Your task to perform on an android device: Clear the shopping cart on bestbuy. Search for lg ultragear on bestbuy, select the first entry, and add it to the cart. Image 0: 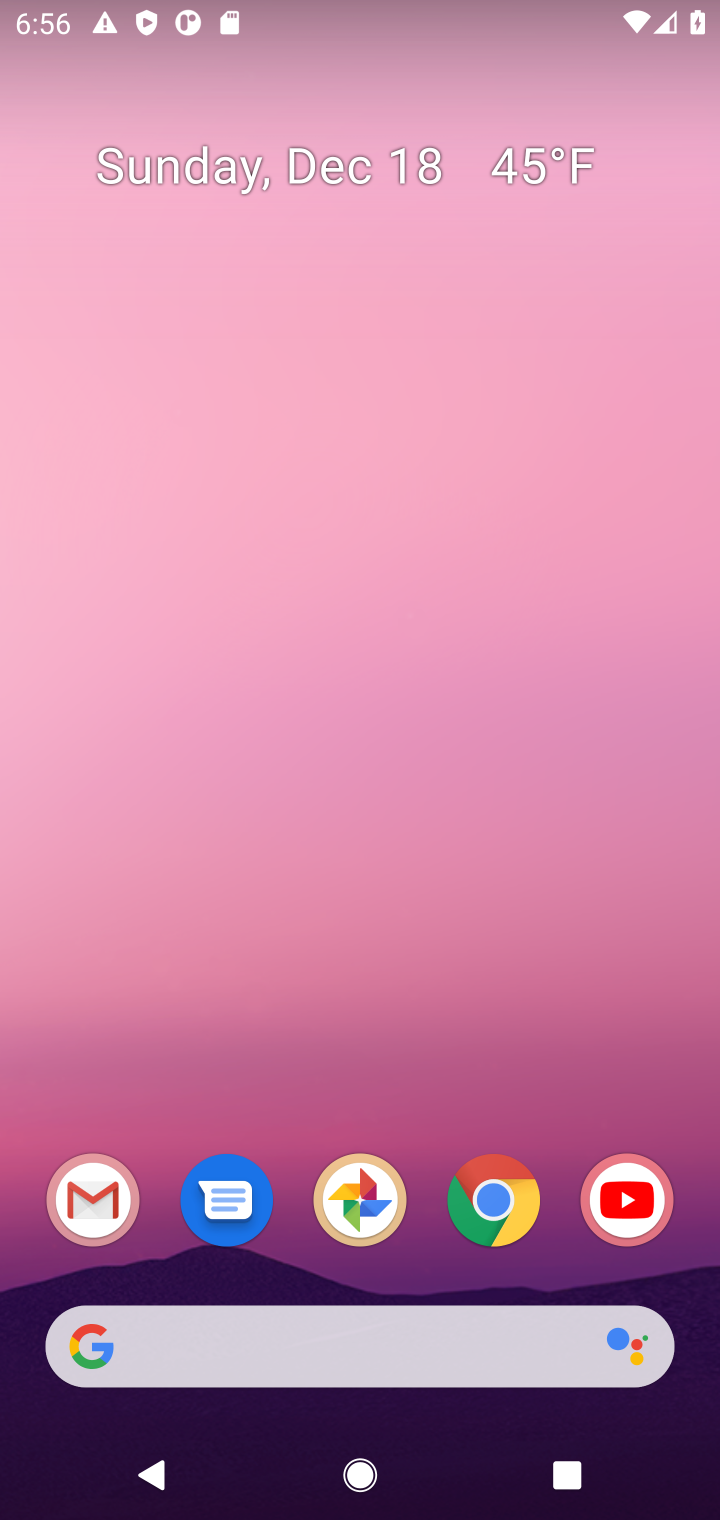
Step 0: click (492, 1207)
Your task to perform on an android device: Clear the shopping cart on bestbuy. Search for lg ultragear on bestbuy, select the first entry, and add it to the cart. Image 1: 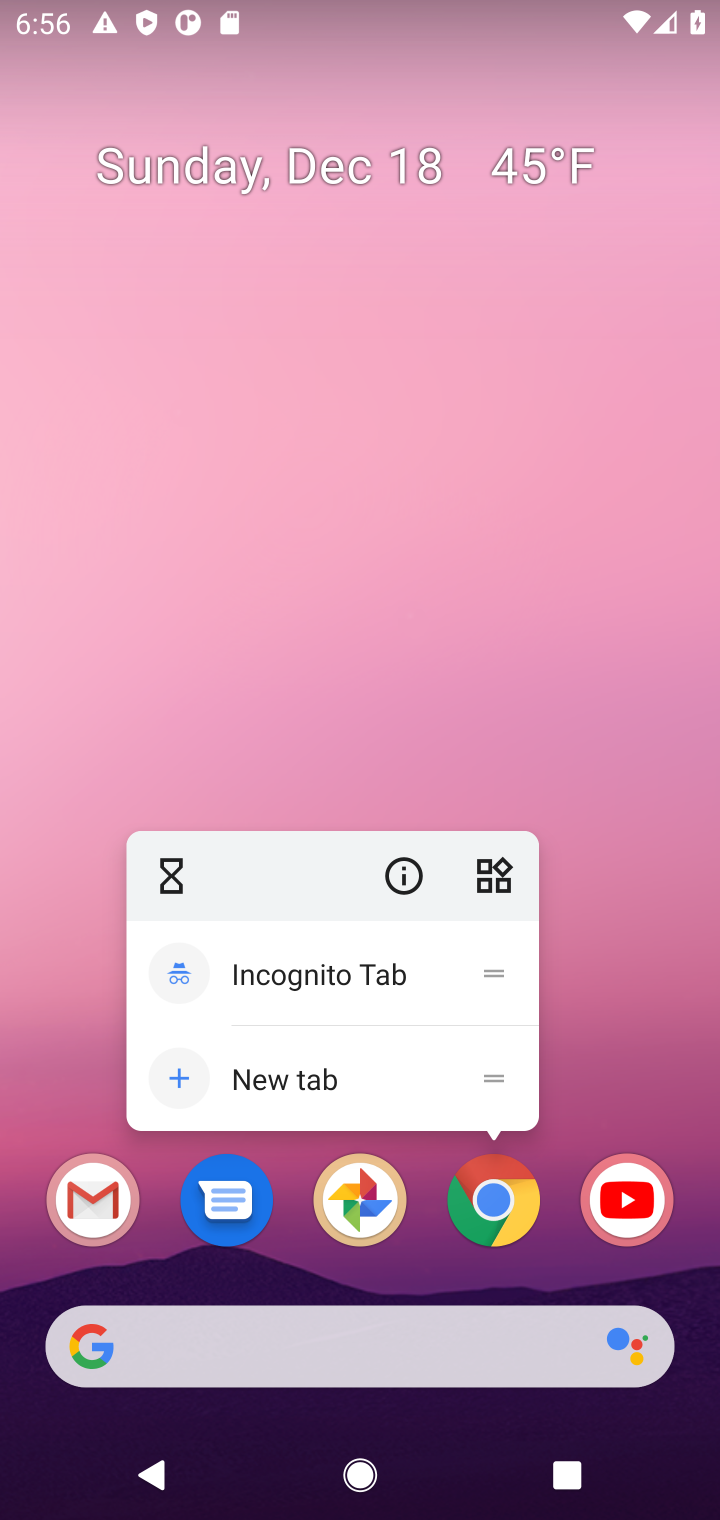
Step 1: click (492, 1207)
Your task to perform on an android device: Clear the shopping cart on bestbuy. Search for lg ultragear on bestbuy, select the first entry, and add it to the cart. Image 2: 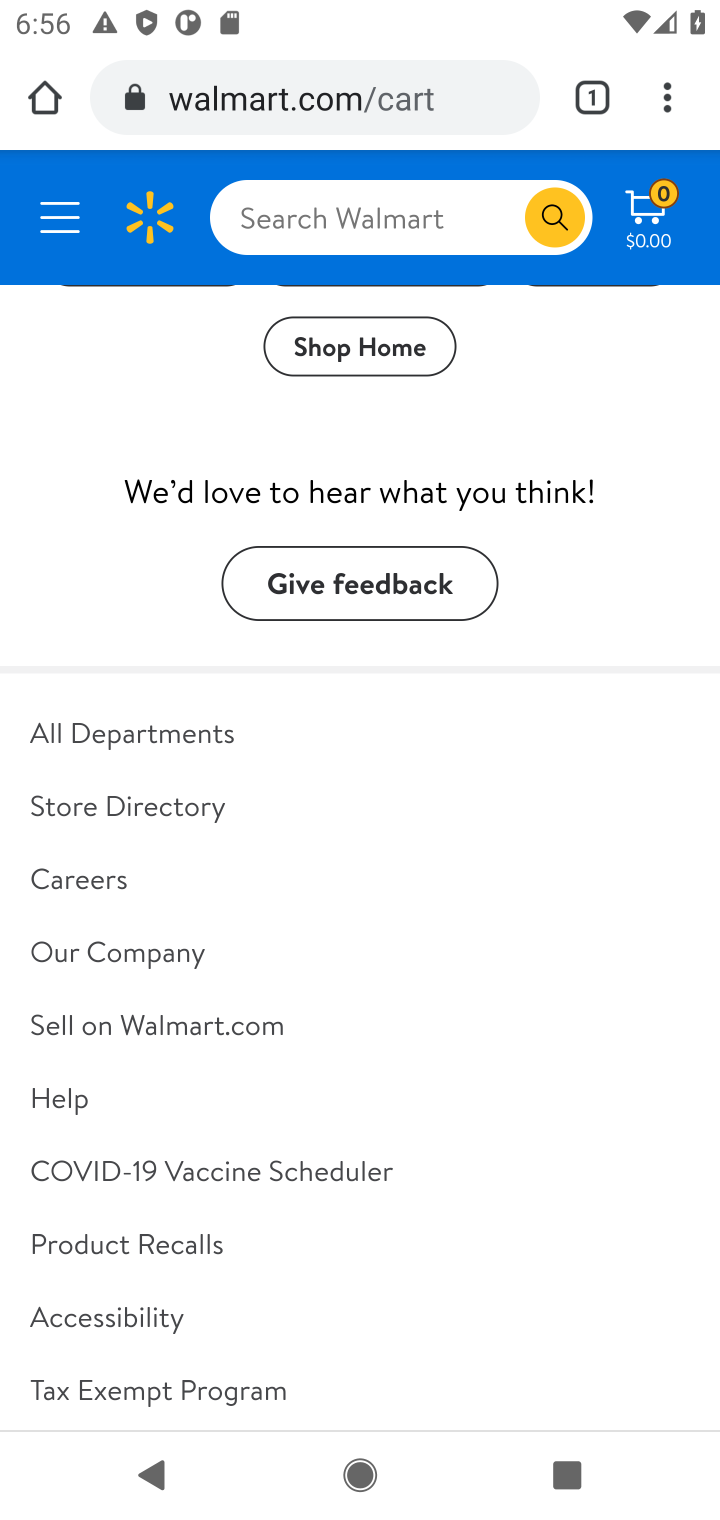
Step 2: click (318, 90)
Your task to perform on an android device: Clear the shopping cart on bestbuy. Search for lg ultragear on bestbuy, select the first entry, and add it to the cart. Image 3: 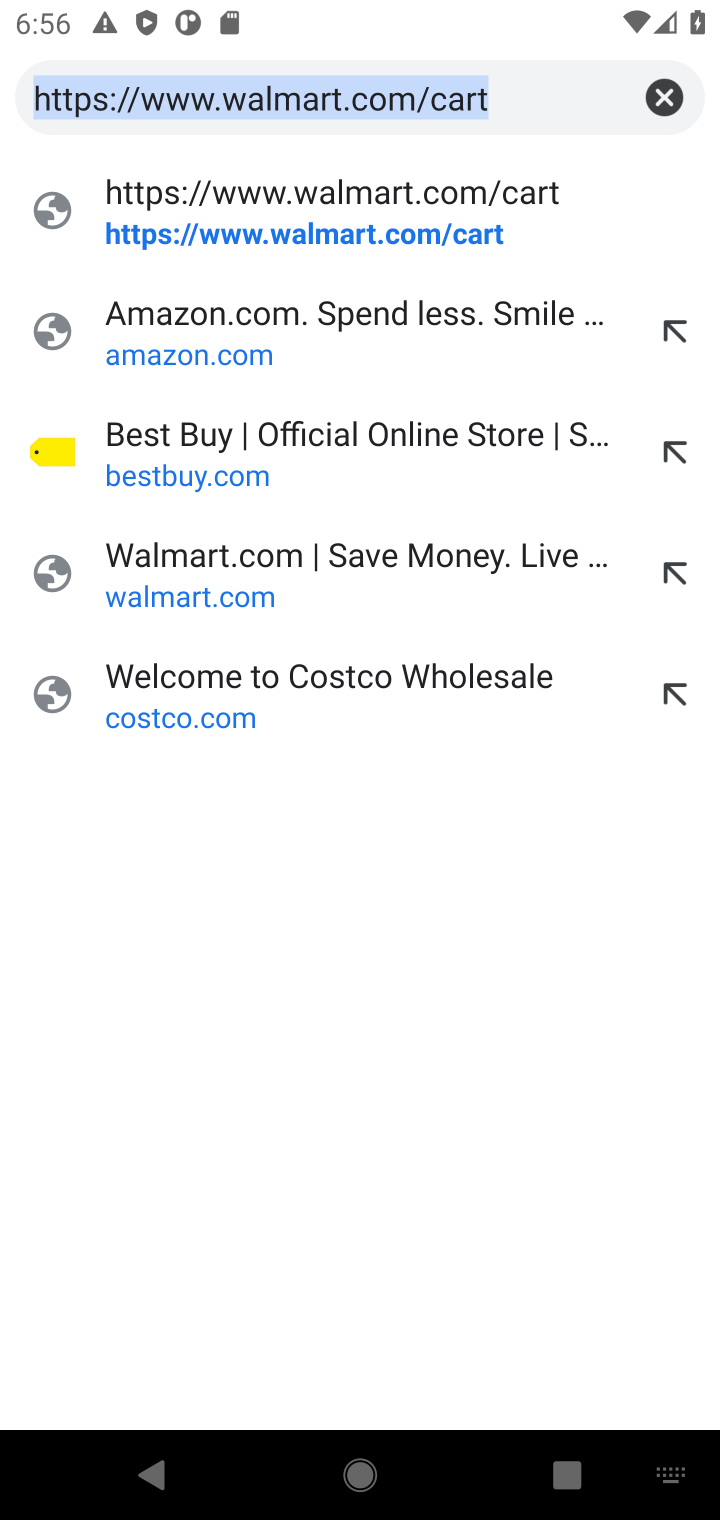
Step 3: click (152, 450)
Your task to perform on an android device: Clear the shopping cart on bestbuy. Search for lg ultragear on bestbuy, select the first entry, and add it to the cart. Image 4: 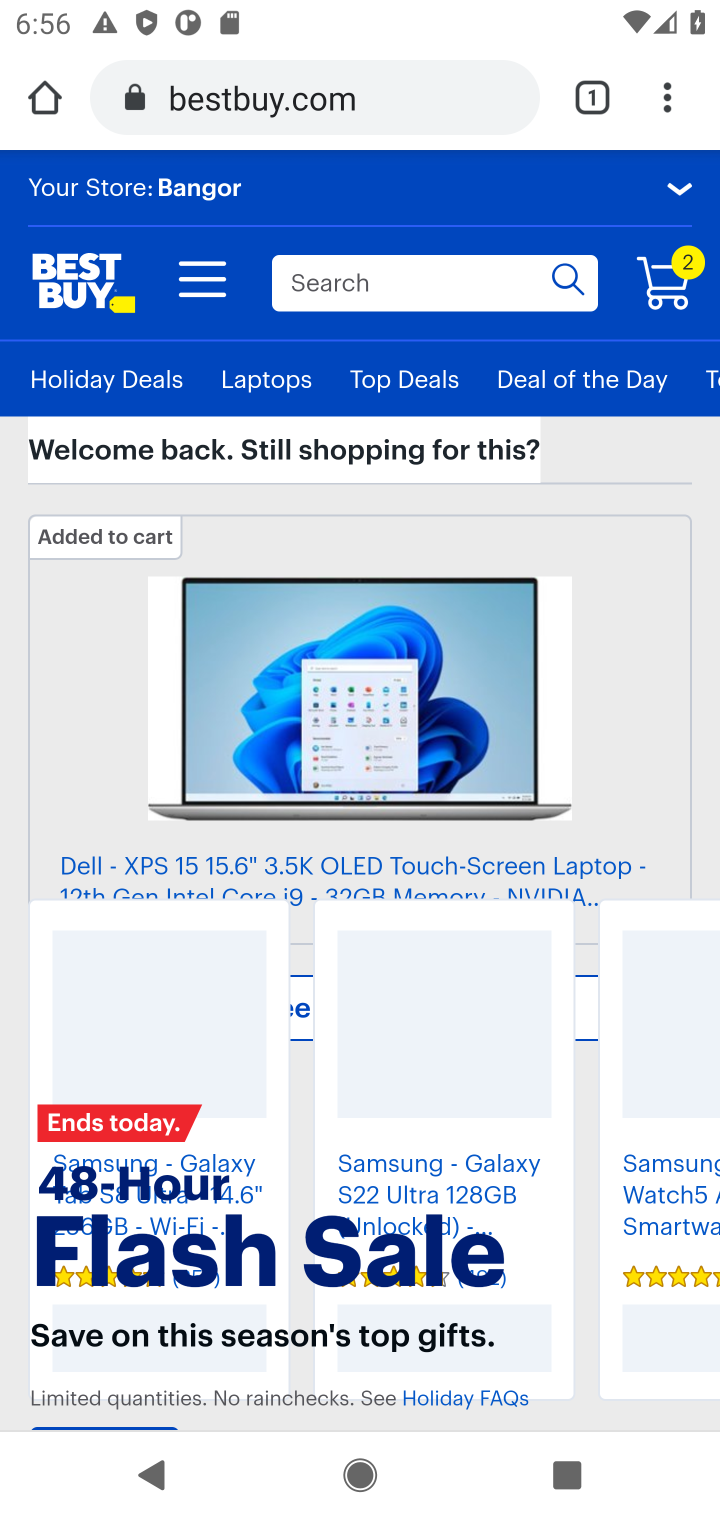
Step 4: click (664, 292)
Your task to perform on an android device: Clear the shopping cart on bestbuy. Search for lg ultragear on bestbuy, select the first entry, and add it to the cart. Image 5: 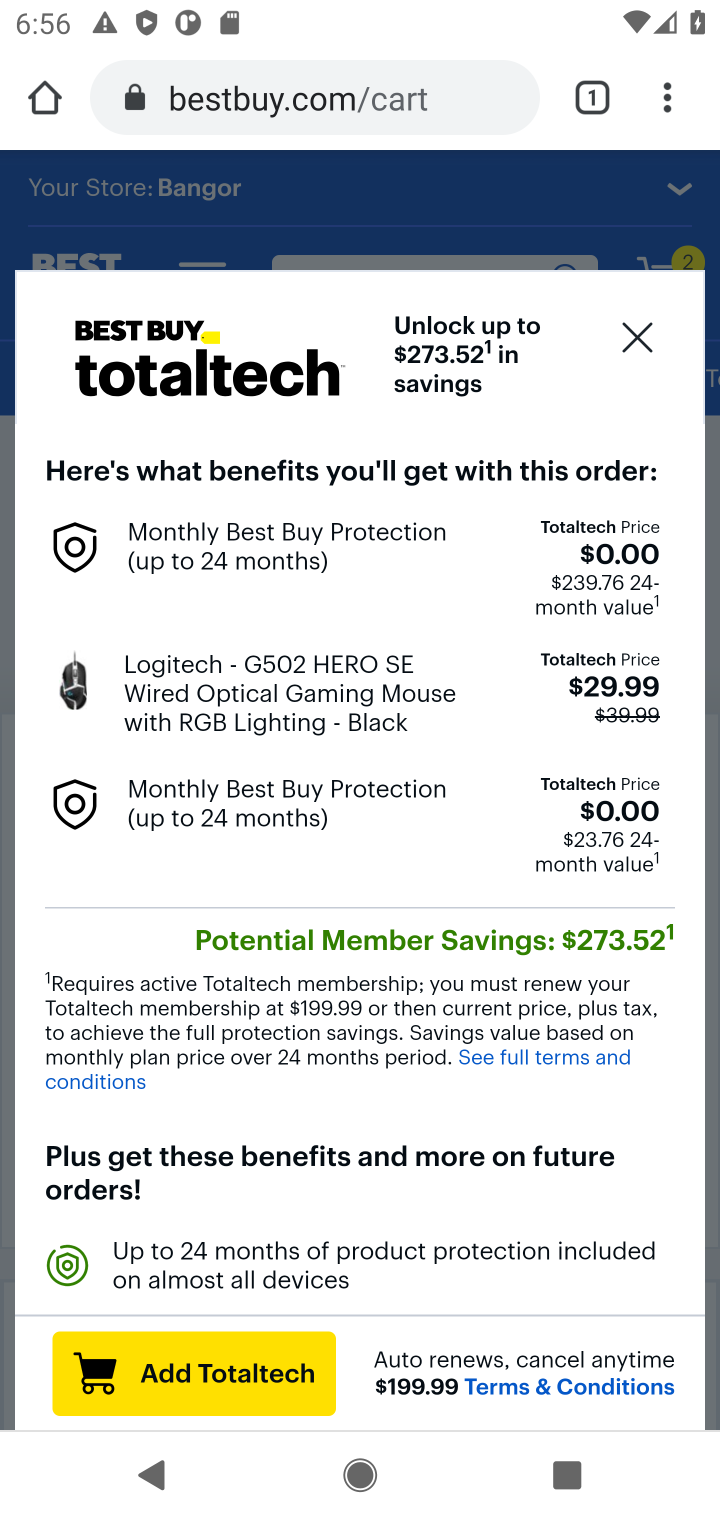
Step 5: click (634, 340)
Your task to perform on an android device: Clear the shopping cart on bestbuy. Search for lg ultragear on bestbuy, select the first entry, and add it to the cart. Image 6: 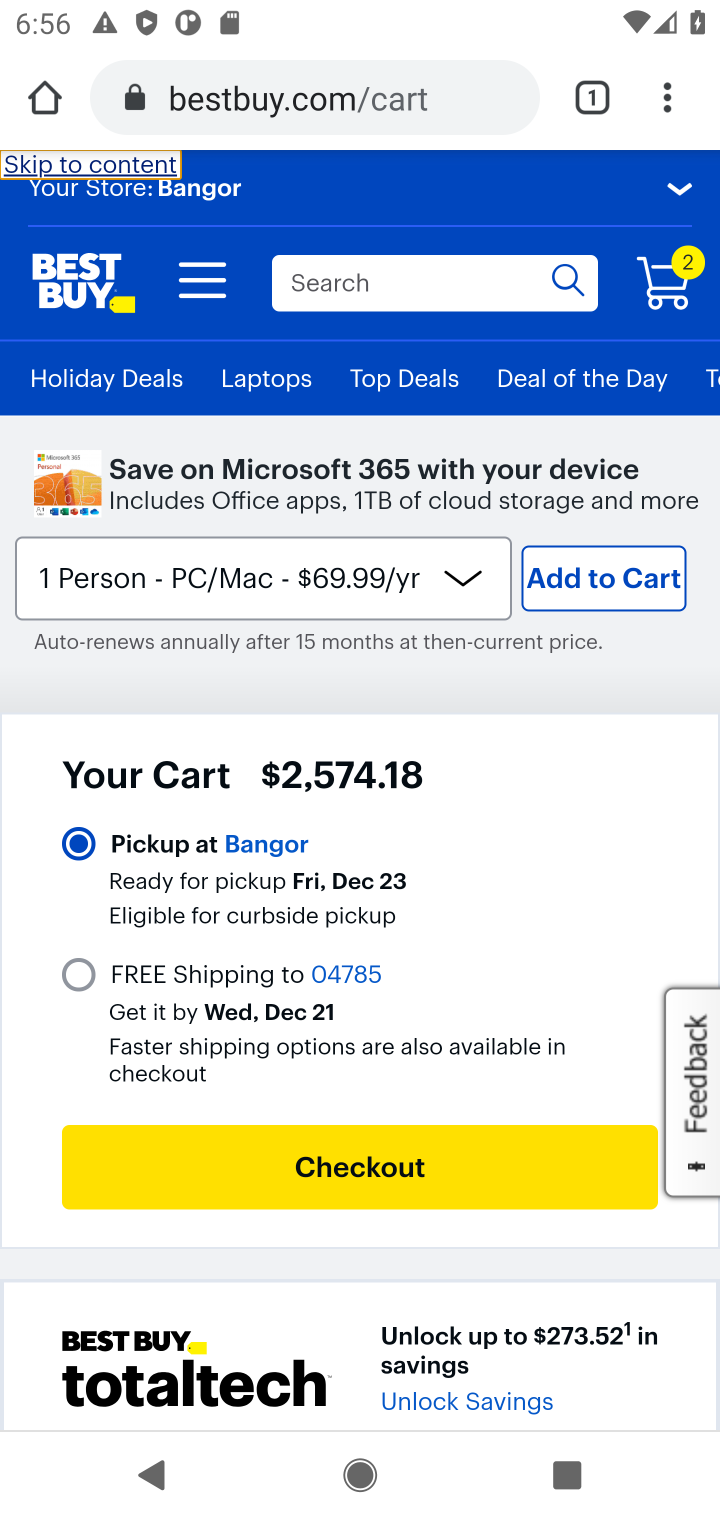
Step 6: drag from (453, 960) to (467, 312)
Your task to perform on an android device: Clear the shopping cart on bestbuy. Search for lg ultragear on bestbuy, select the first entry, and add it to the cart. Image 7: 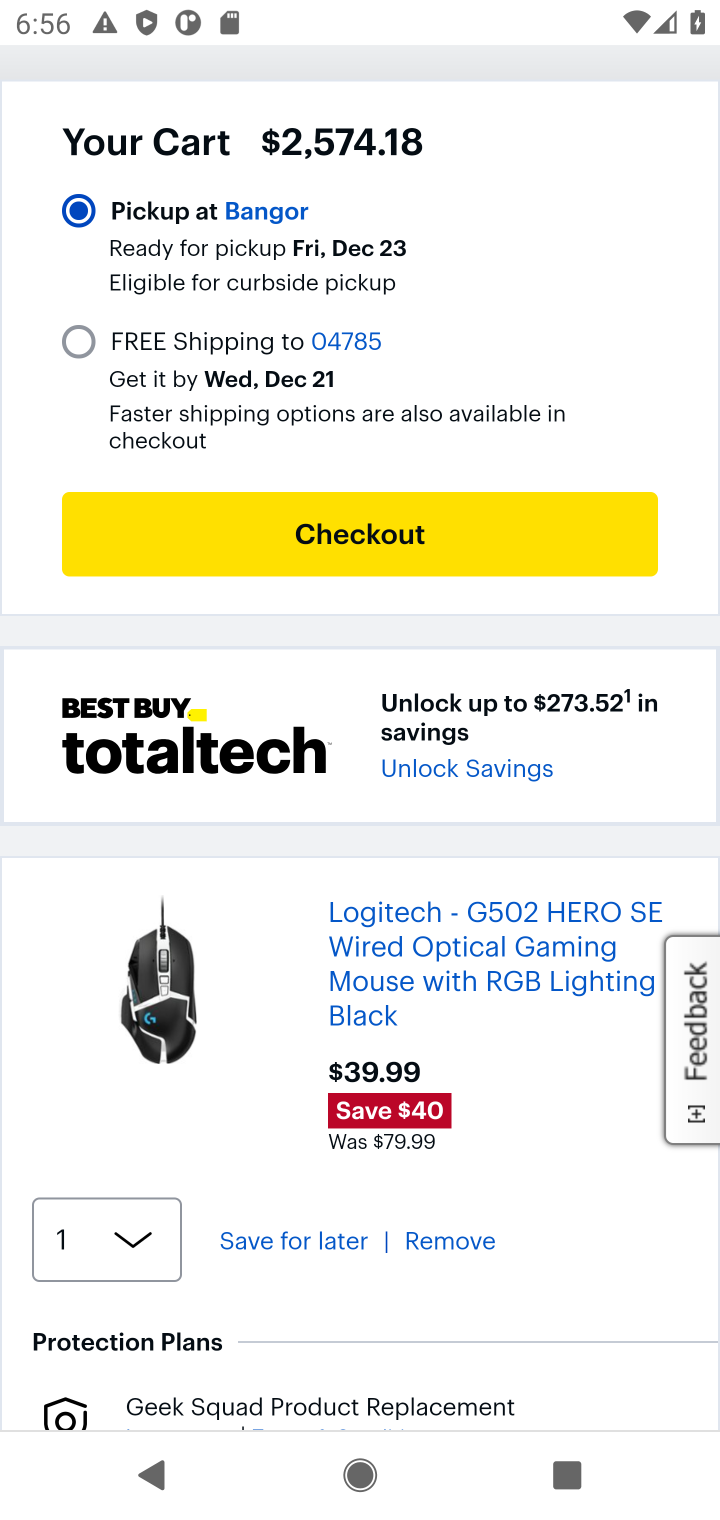
Step 7: click (446, 1248)
Your task to perform on an android device: Clear the shopping cart on bestbuy. Search for lg ultragear on bestbuy, select the first entry, and add it to the cart. Image 8: 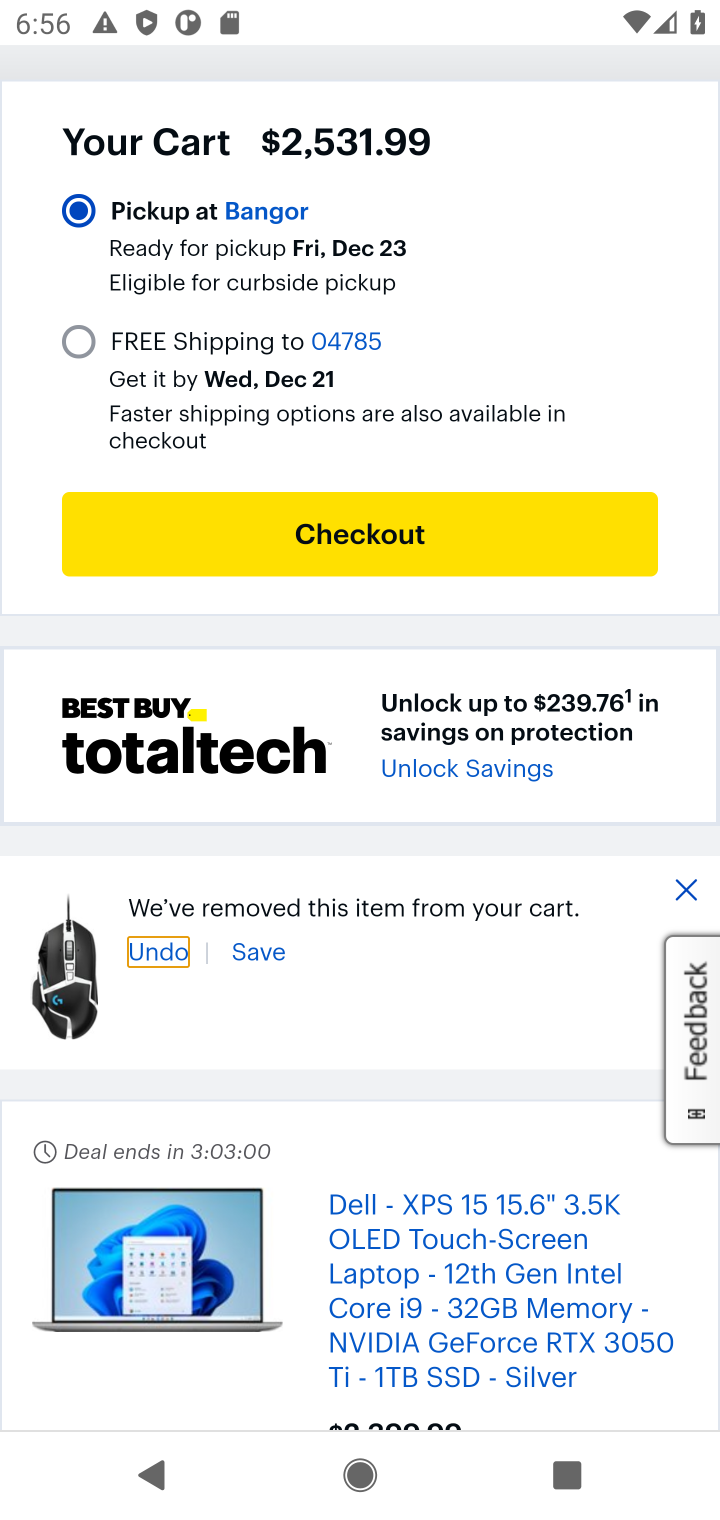
Step 8: drag from (422, 1240) to (355, 692)
Your task to perform on an android device: Clear the shopping cart on bestbuy. Search for lg ultragear on bestbuy, select the first entry, and add it to the cart. Image 9: 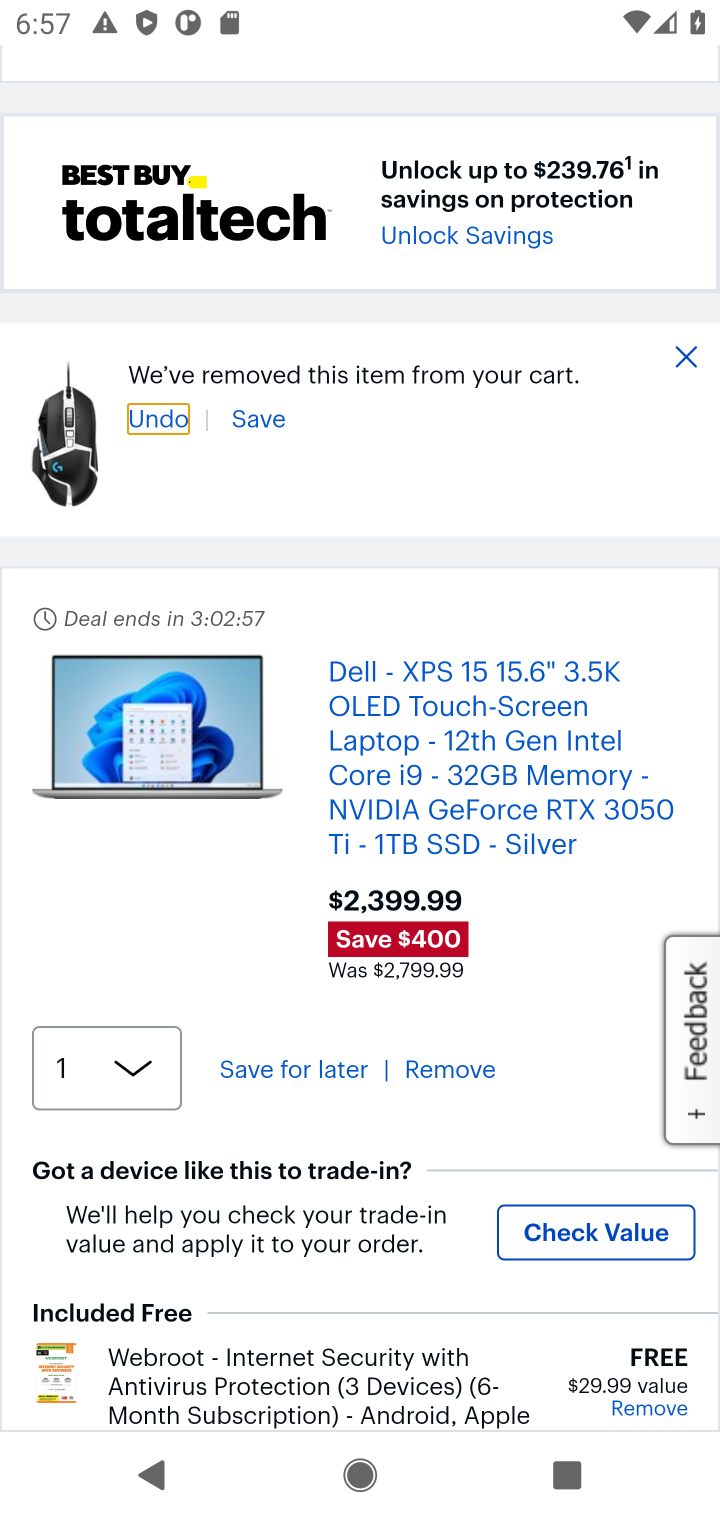
Step 9: click (458, 1072)
Your task to perform on an android device: Clear the shopping cart on bestbuy. Search for lg ultragear on bestbuy, select the first entry, and add it to the cart. Image 10: 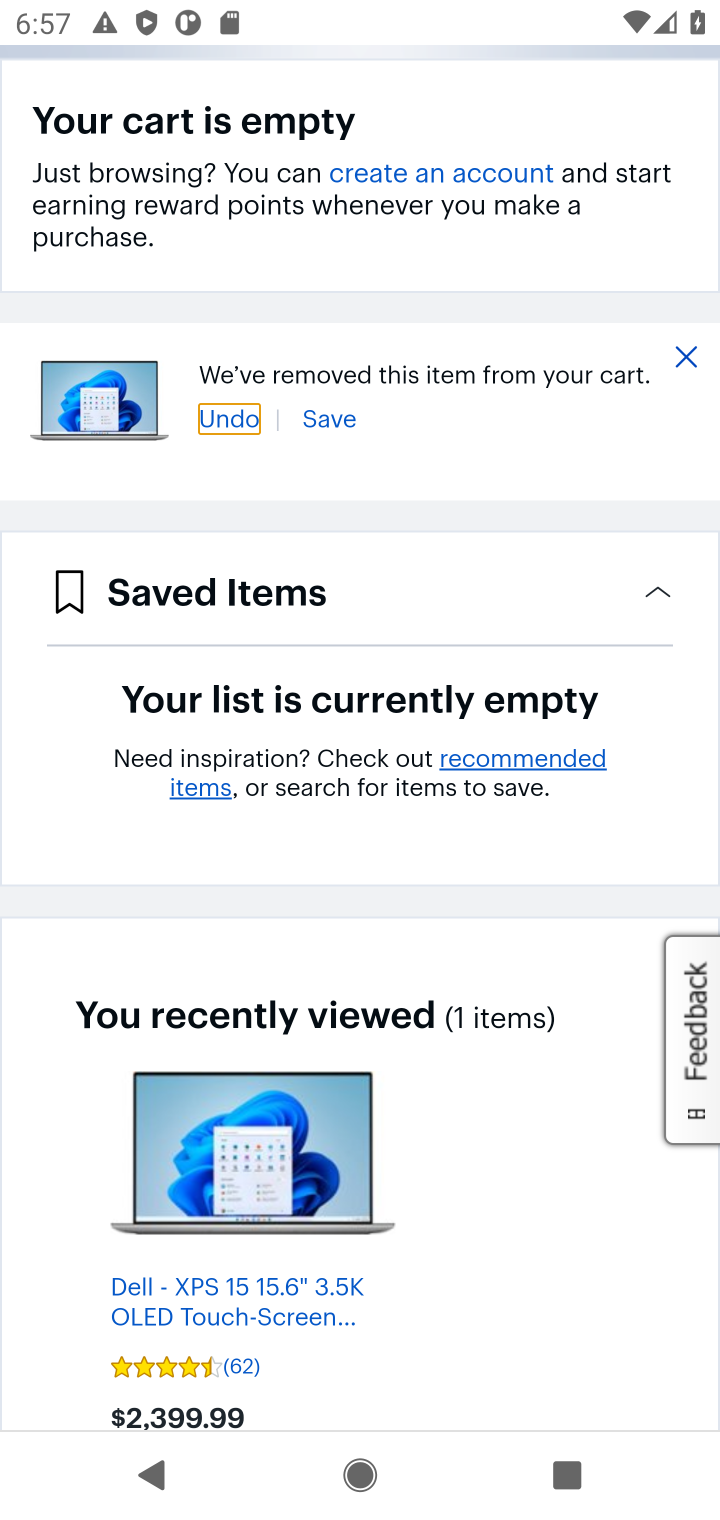
Step 10: drag from (459, 267) to (439, 1059)
Your task to perform on an android device: Clear the shopping cart on bestbuy. Search for lg ultragear on bestbuy, select the first entry, and add it to the cart. Image 11: 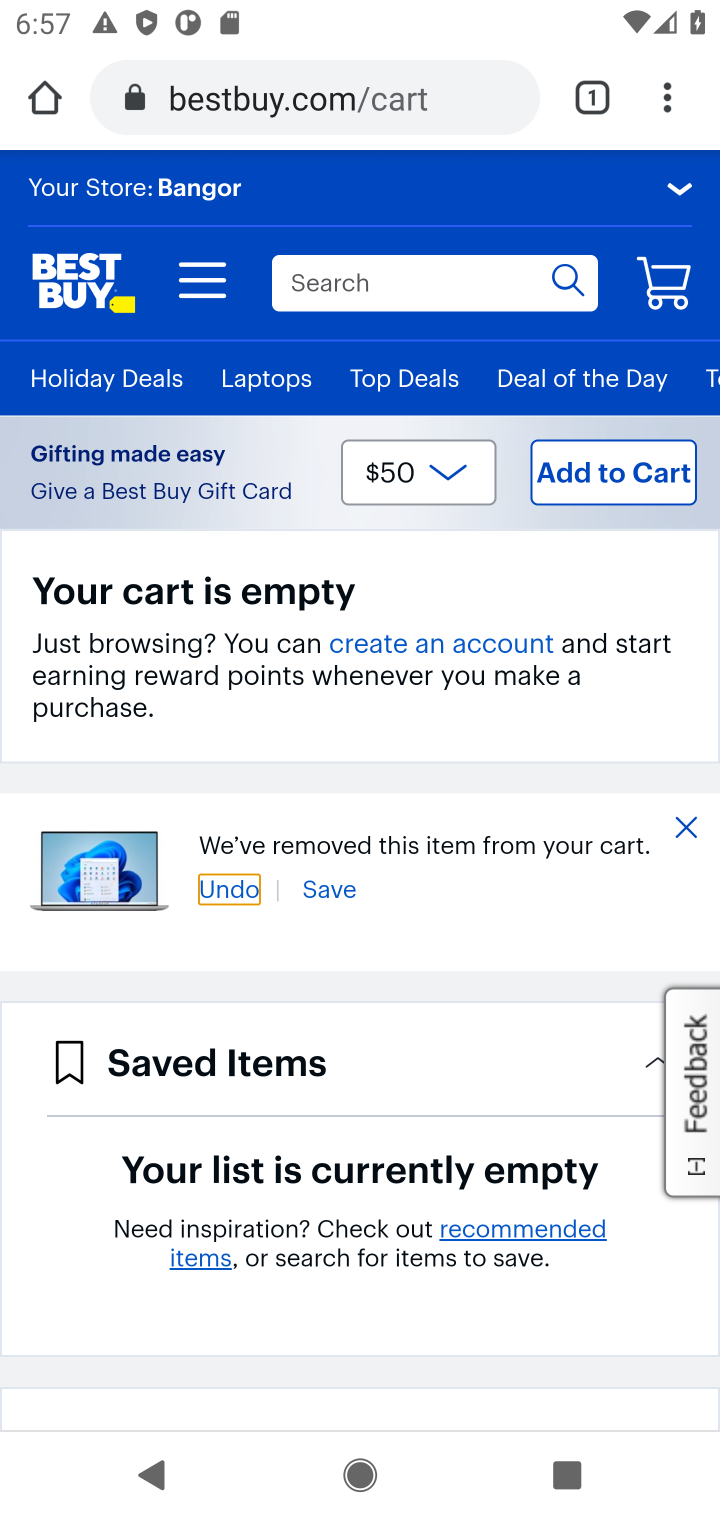
Step 11: click (341, 283)
Your task to perform on an android device: Clear the shopping cart on bestbuy. Search for lg ultragear on bestbuy, select the first entry, and add it to the cart. Image 12: 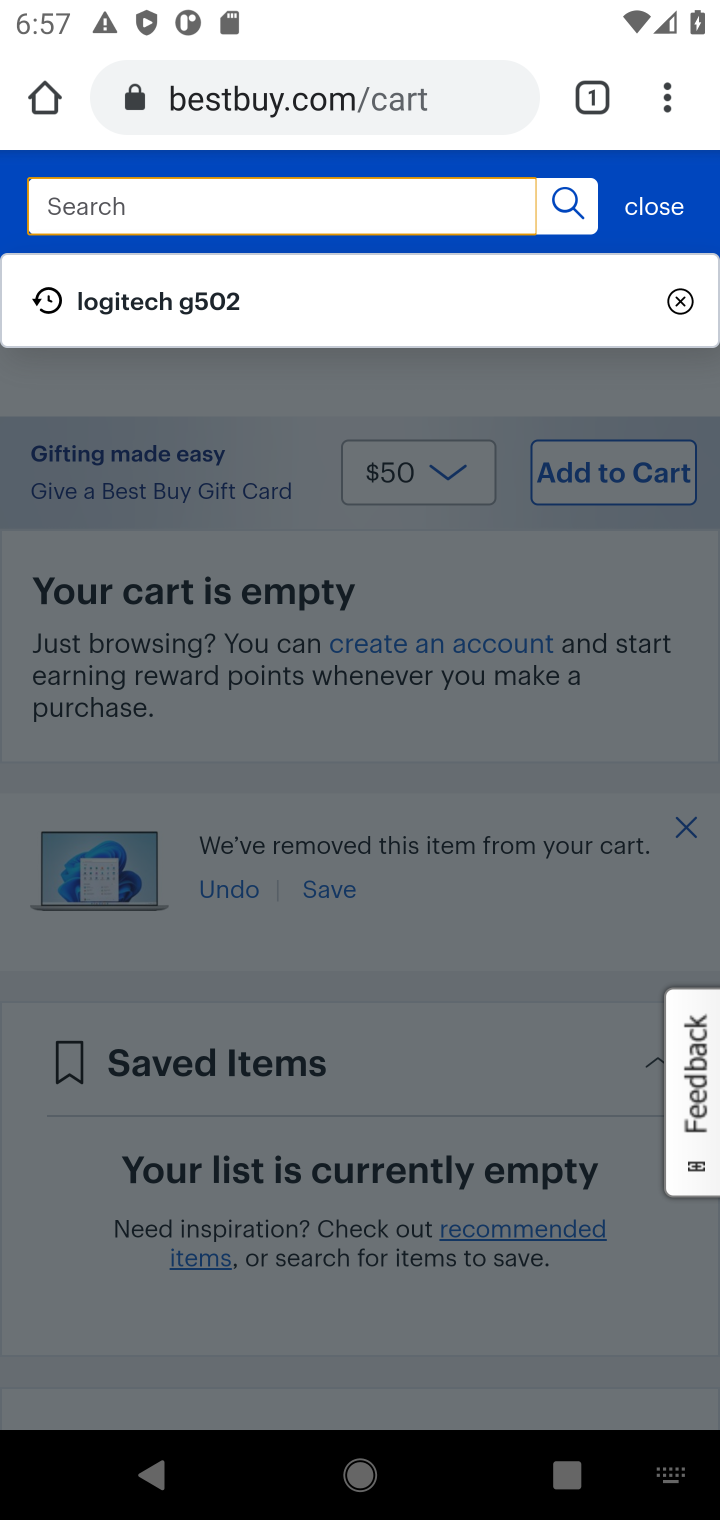
Step 12: type "lg ultragear "
Your task to perform on an android device: Clear the shopping cart on bestbuy. Search for lg ultragear on bestbuy, select the first entry, and add it to the cart. Image 13: 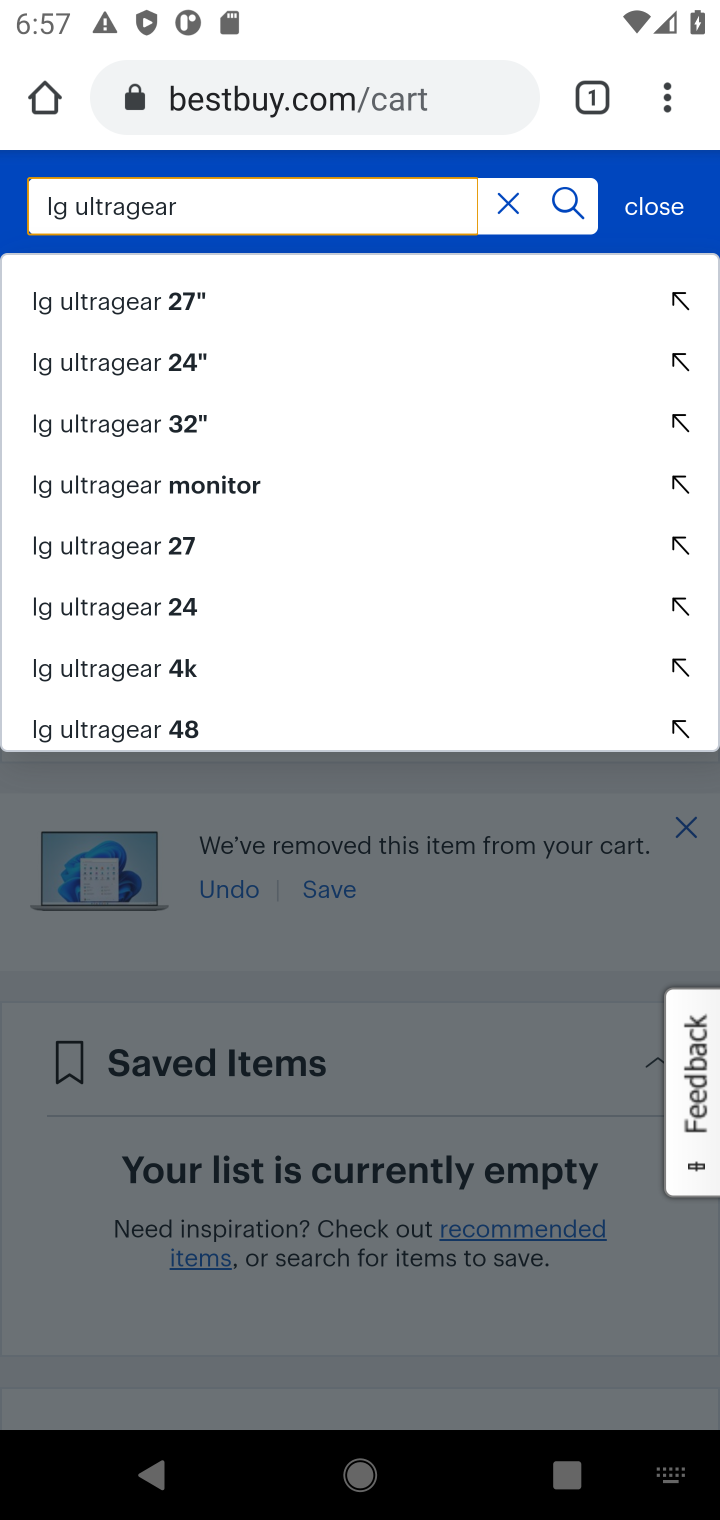
Step 13: click (560, 211)
Your task to perform on an android device: Clear the shopping cart on bestbuy. Search for lg ultragear on bestbuy, select the first entry, and add it to the cart. Image 14: 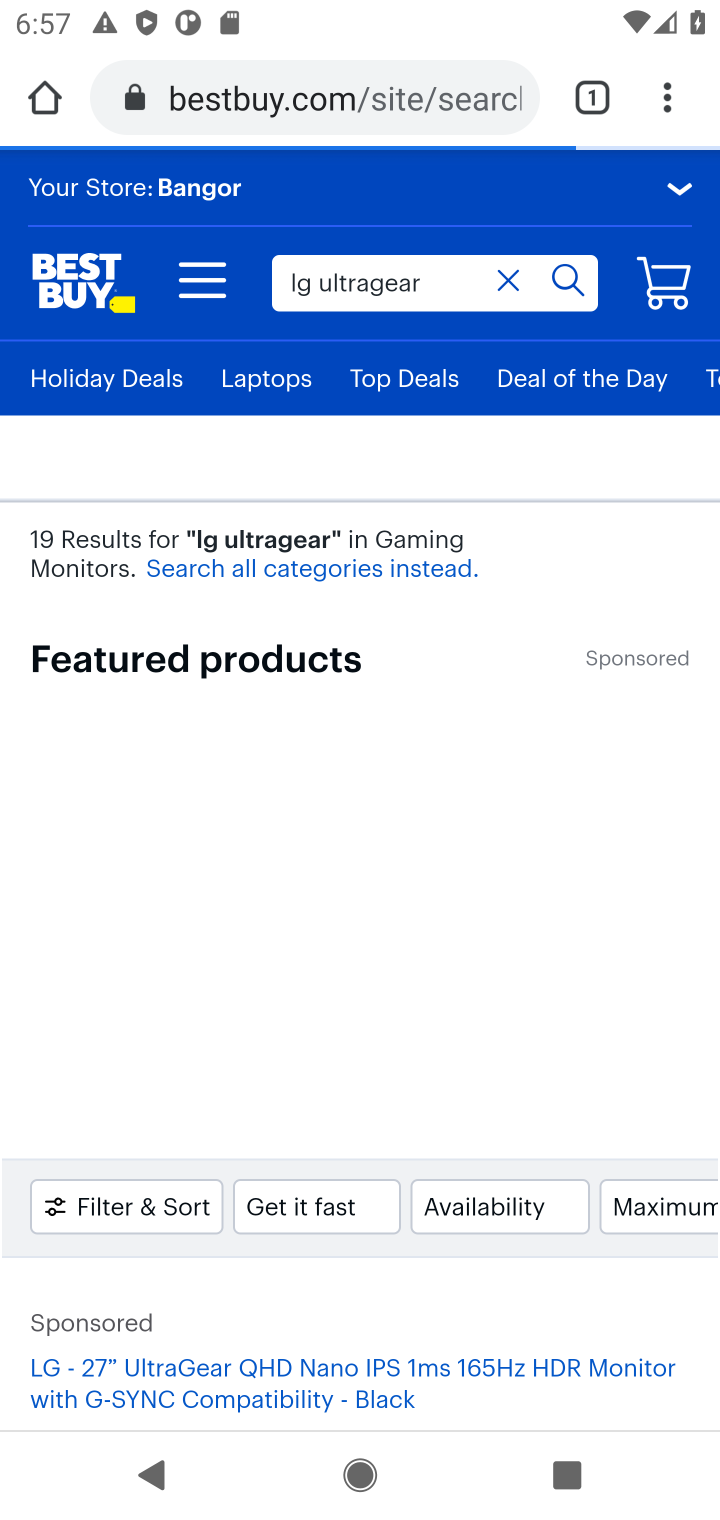
Step 14: drag from (262, 863) to (303, 213)
Your task to perform on an android device: Clear the shopping cart on bestbuy. Search for lg ultragear on bestbuy, select the first entry, and add it to the cart. Image 15: 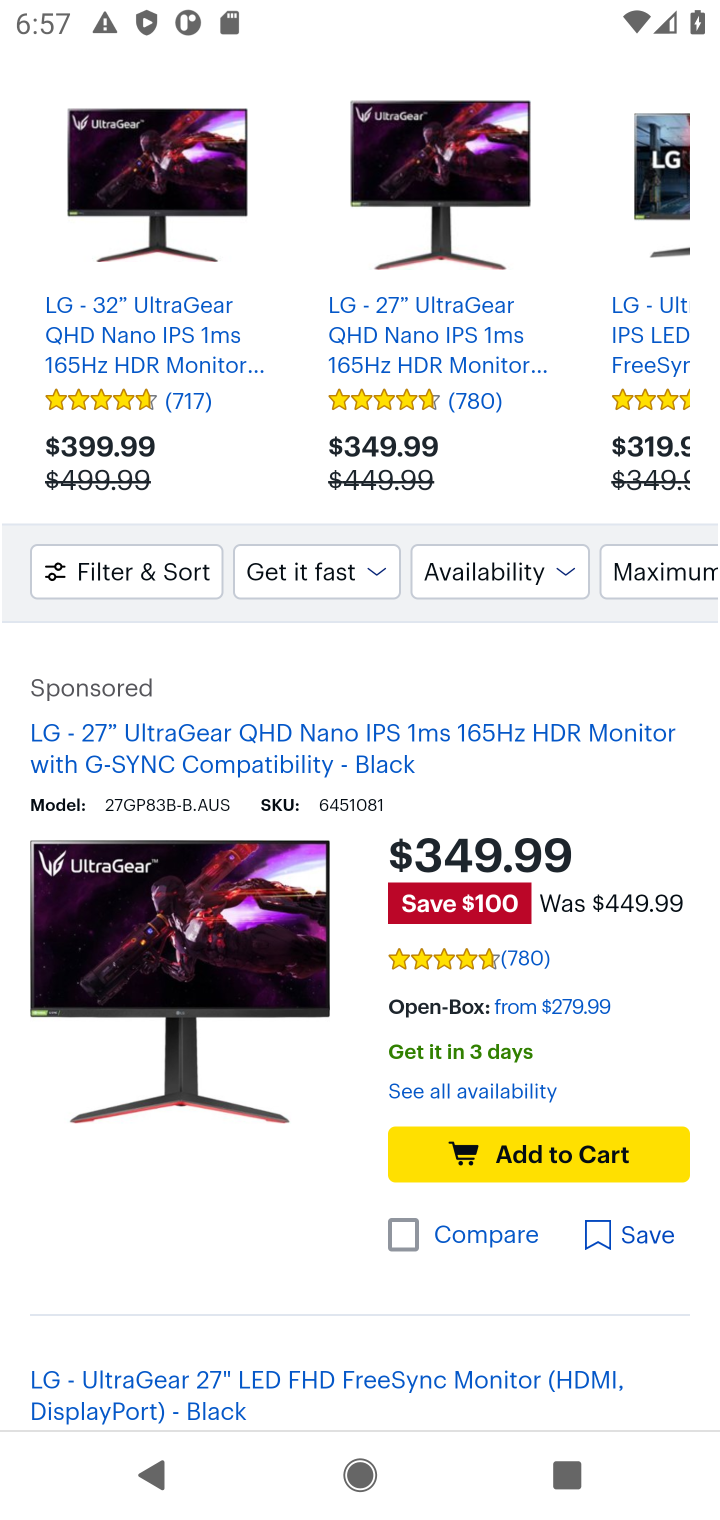
Step 15: click (484, 1153)
Your task to perform on an android device: Clear the shopping cart on bestbuy. Search for lg ultragear on bestbuy, select the first entry, and add it to the cart. Image 16: 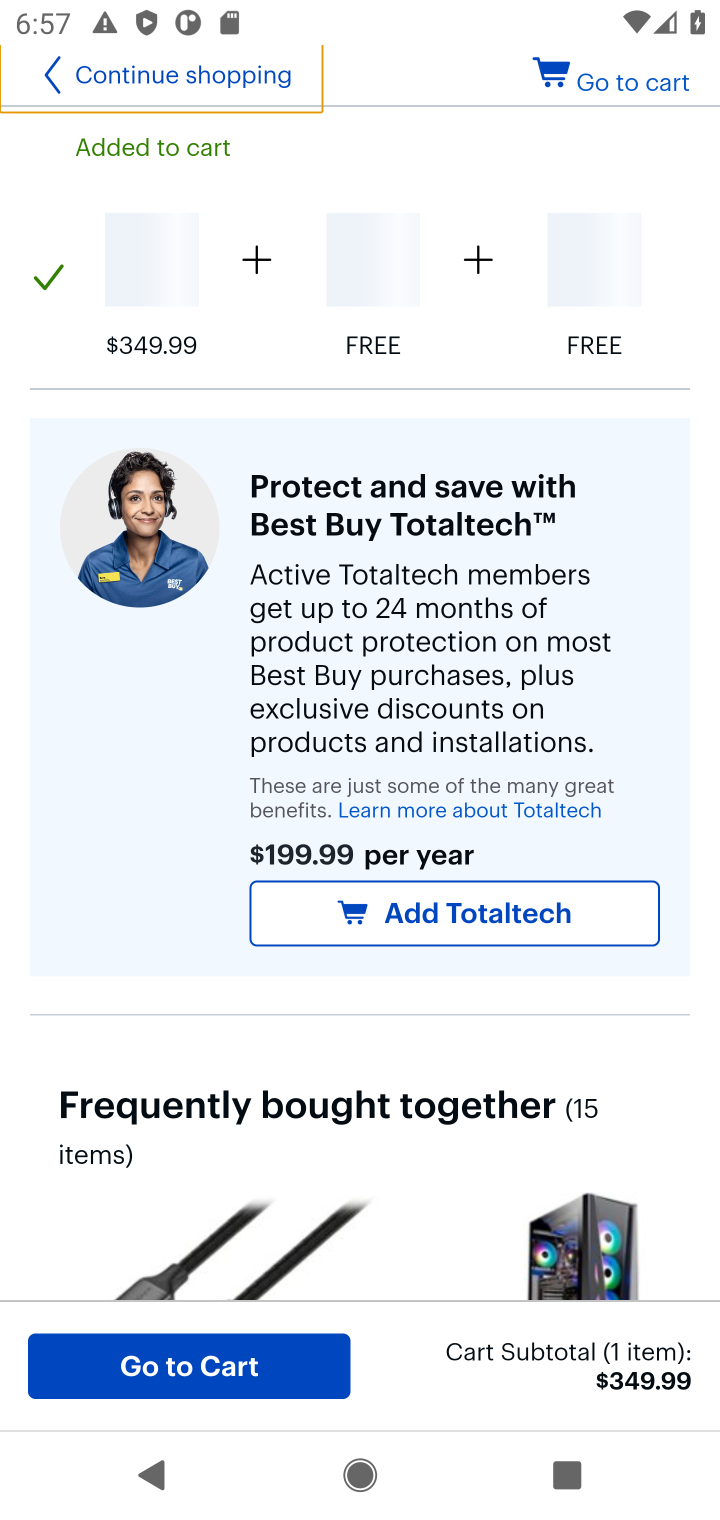
Step 16: task complete